Your task to perform on an android device: install app "Venmo" Image 0: 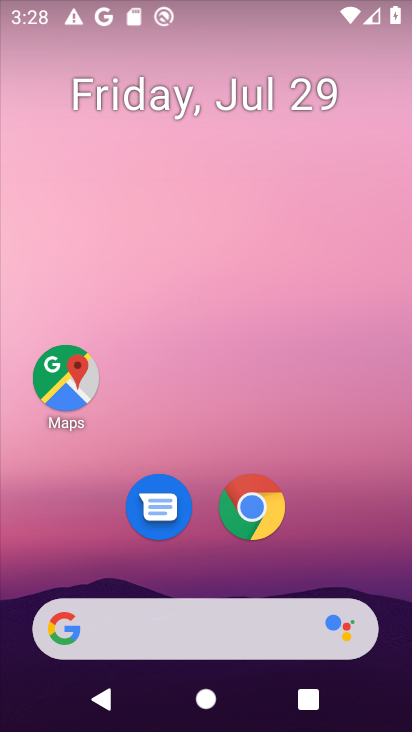
Step 0: click (238, 623)
Your task to perform on an android device: install app "Venmo" Image 1: 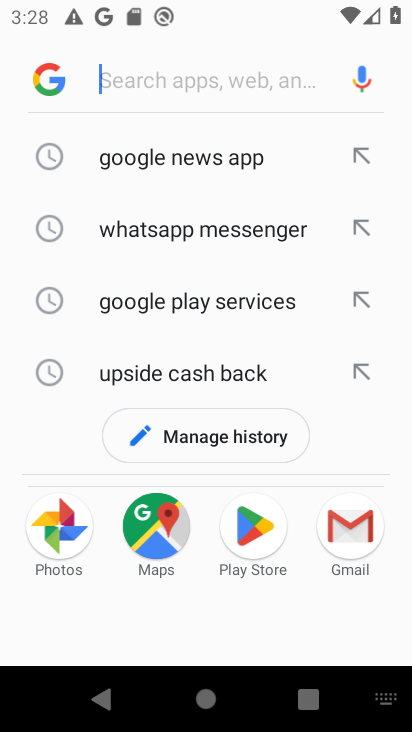
Step 1: type "venmo"
Your task to perform on an android device: install app "Venmo" Image 2: 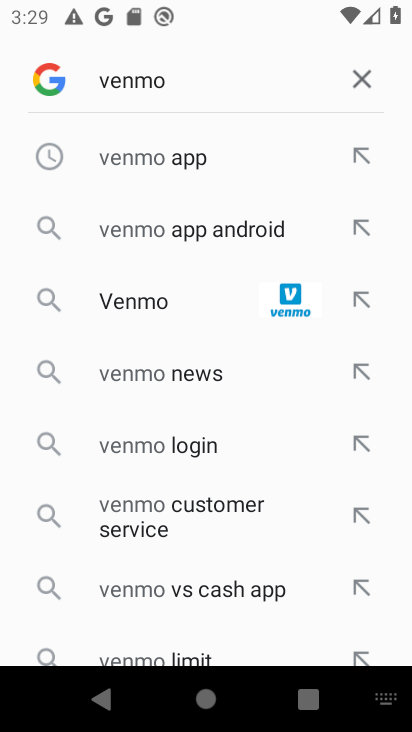
Step 2: click (163, 142)
Your task to perform on an android device: install app "Venmo" Image 3: 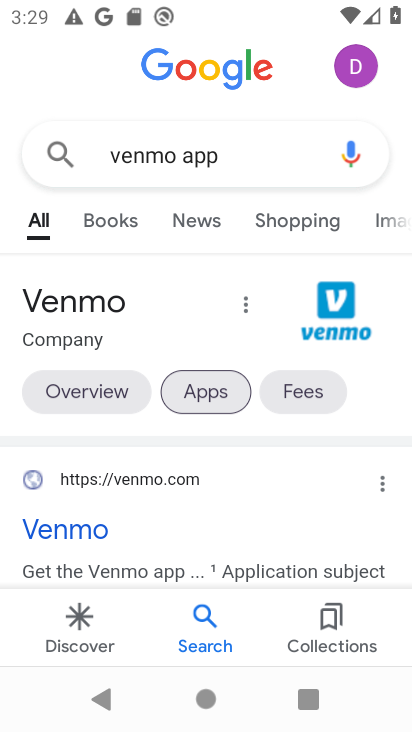
Step 3: click (241, 553)
Your task to perform on an android device: install app "Venmo" Image 4: 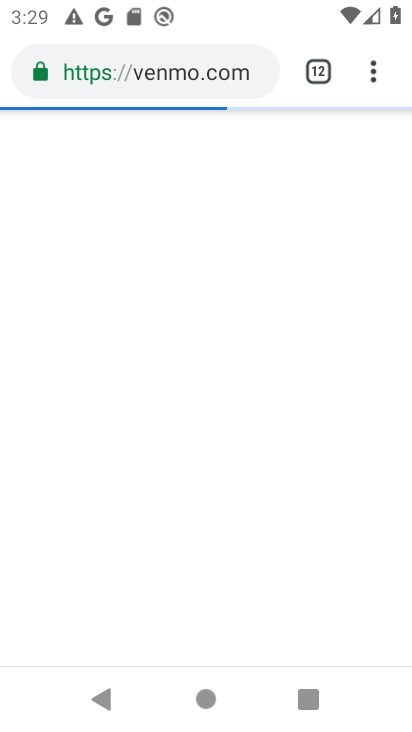
Step 4: task complete